Your task to perform on an android device: Search for a new nail polish Image 0: 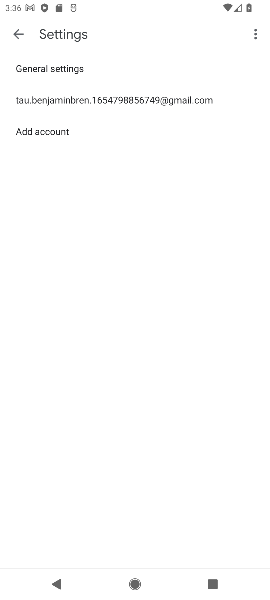
Step 0: press home button
Your task to perform on an android device: Search for a new nail polish Image 1: 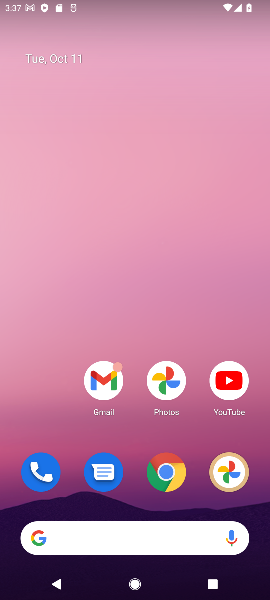
Step 1: click (105, 535)
Your task to perform on an android device: Search for a new nail polish Image 2: 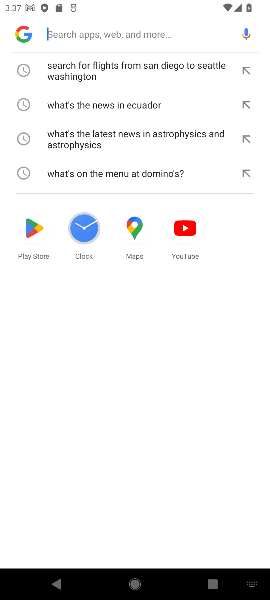
Step 2: type "a new nail polish"
Your task to perform on an android device: Search for a new nail polish Image 3: 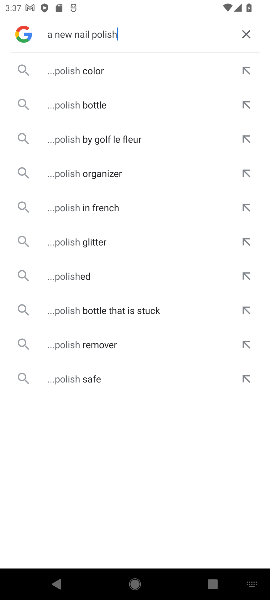
Step 3: click (88, 74)
Your task to perform on an android device: Search for a new nail polish Image 4: 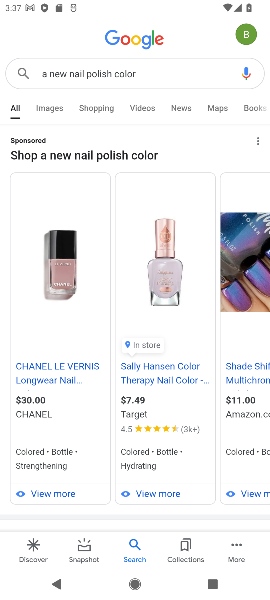
Step 4: task complete